Your task to perform on an android device: Search for 5 star sushi restaurants on Maps Image 0: 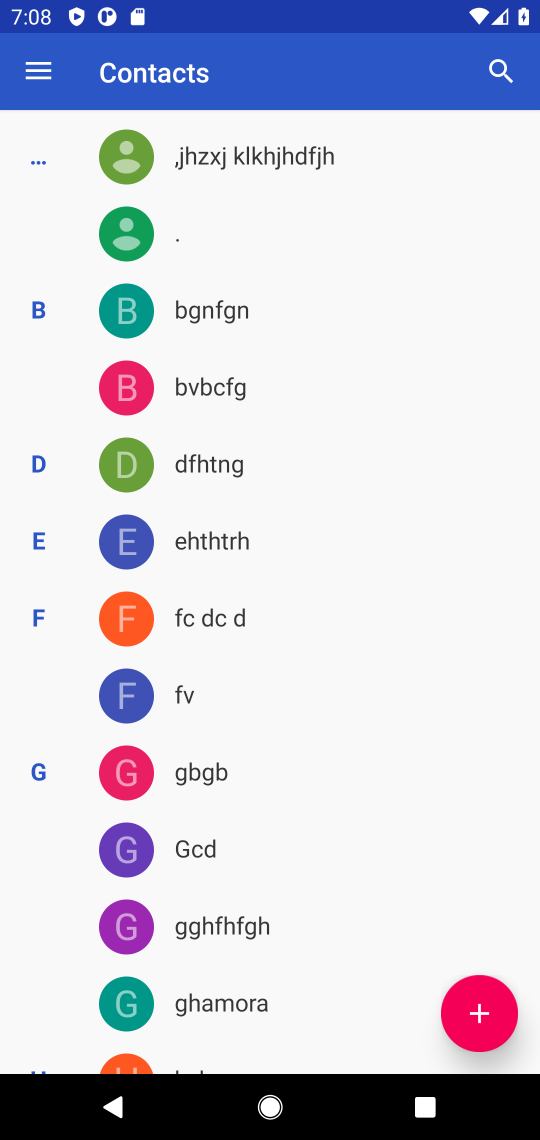
Step 0: press home button
Your task to perform on an android device: Search for 5 star sushi restaurants on Maps Image 1: 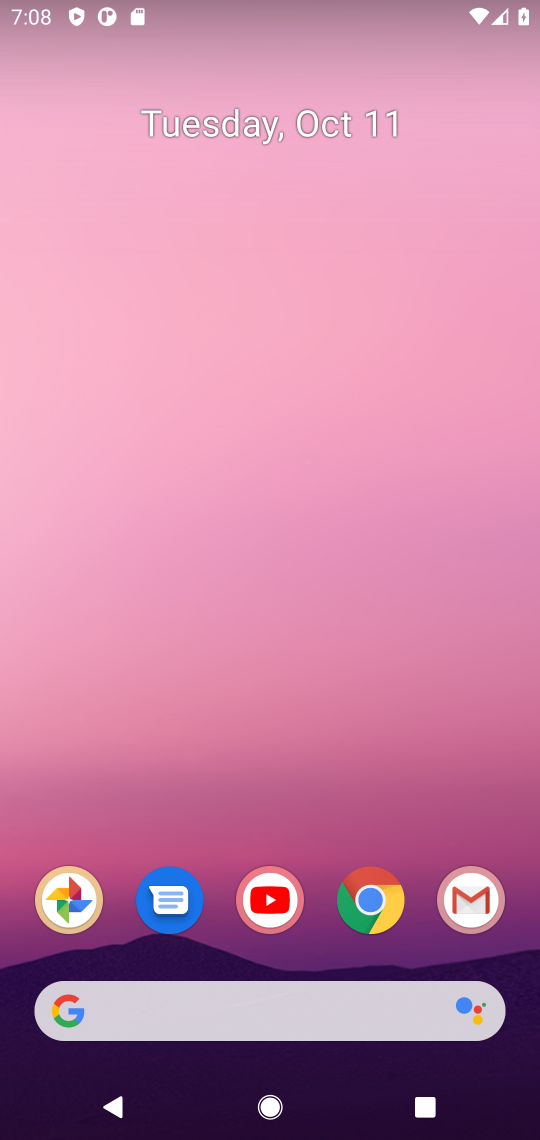
Step 1: click (356, 903)
Your task to perform on an android device: Search for 5 star sushi restaurants on Maps Image 2: 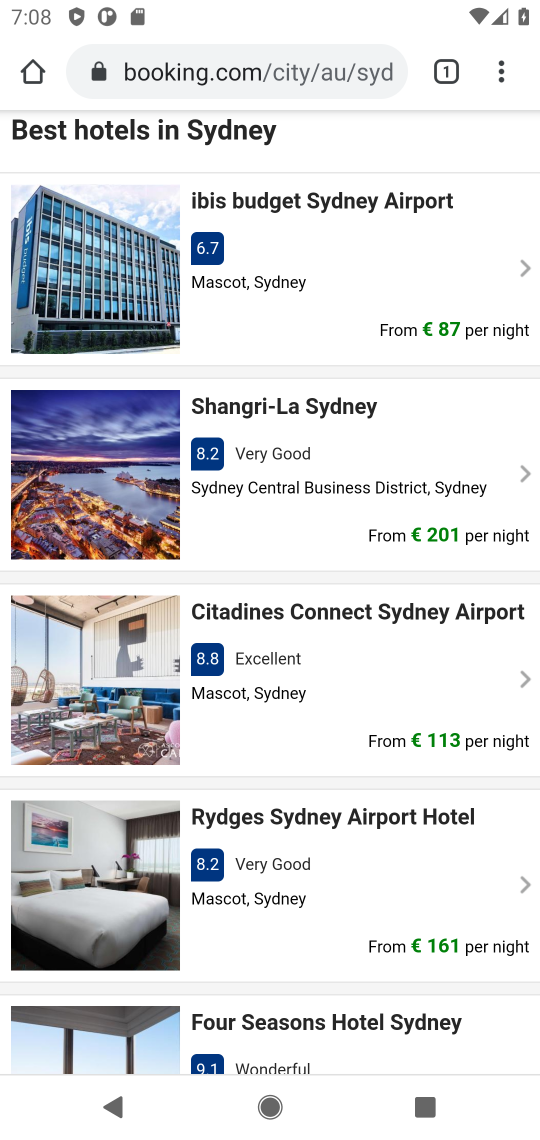
Step 2: click (290, 75)
Your task to perform on an android device: Search for 5 star sushi restaurants on Maps Image 3: 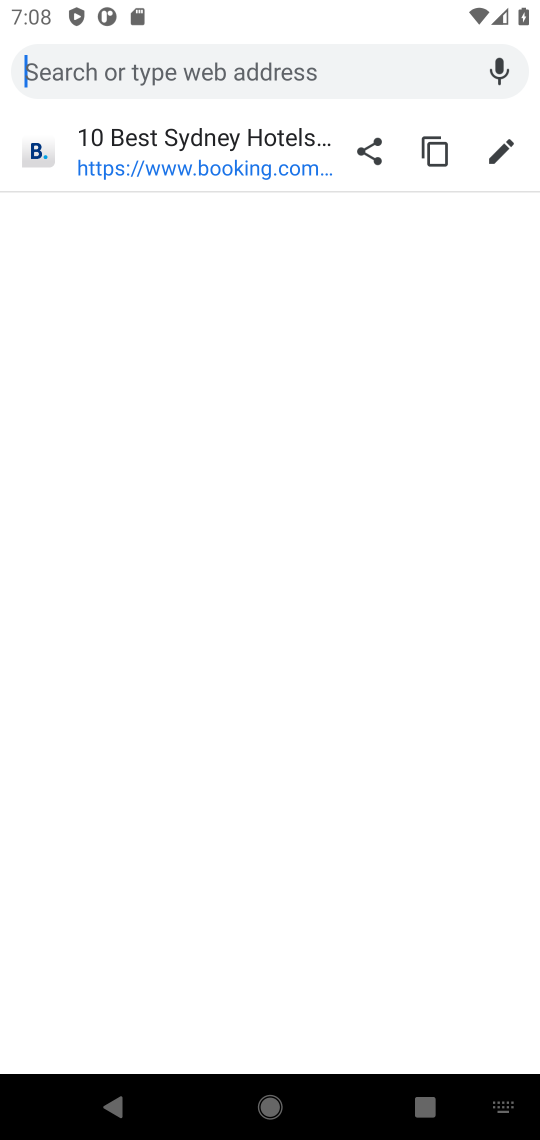
Step 3: press home button
Your task to perform on an android device: Search for 5 star sushi restaurants on Maps Image 4: 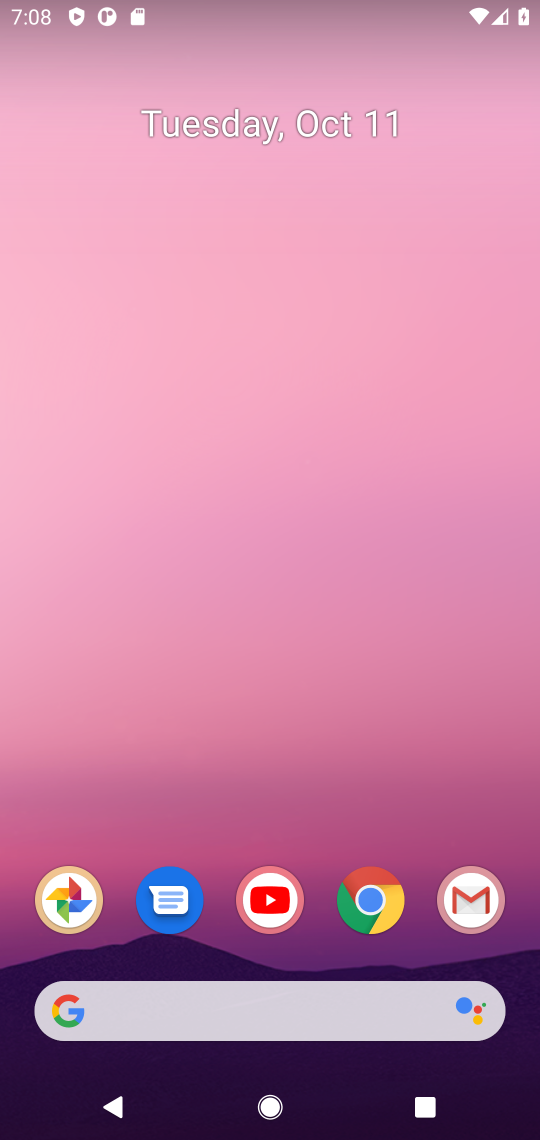
Step 4: drag from (368, 703) to (343, 22)
Your task to perform on an android device: Search for 5 star sushi restaurants on Maps Image 5: 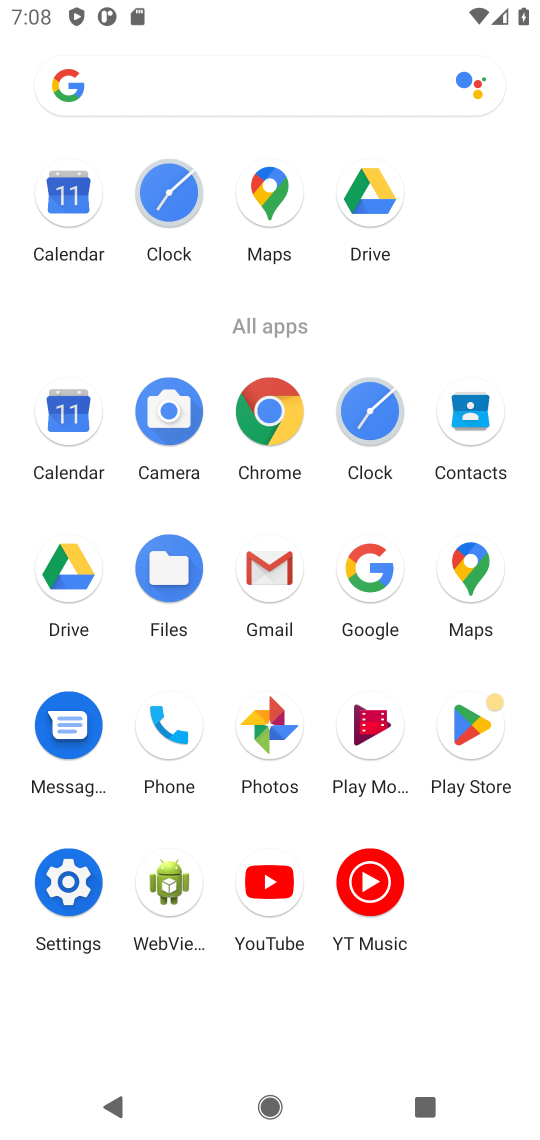
Step 5: click (483, 565)
Your task to perform on an android device: Search for 5 star sushi restaurants on Maps Image 6: 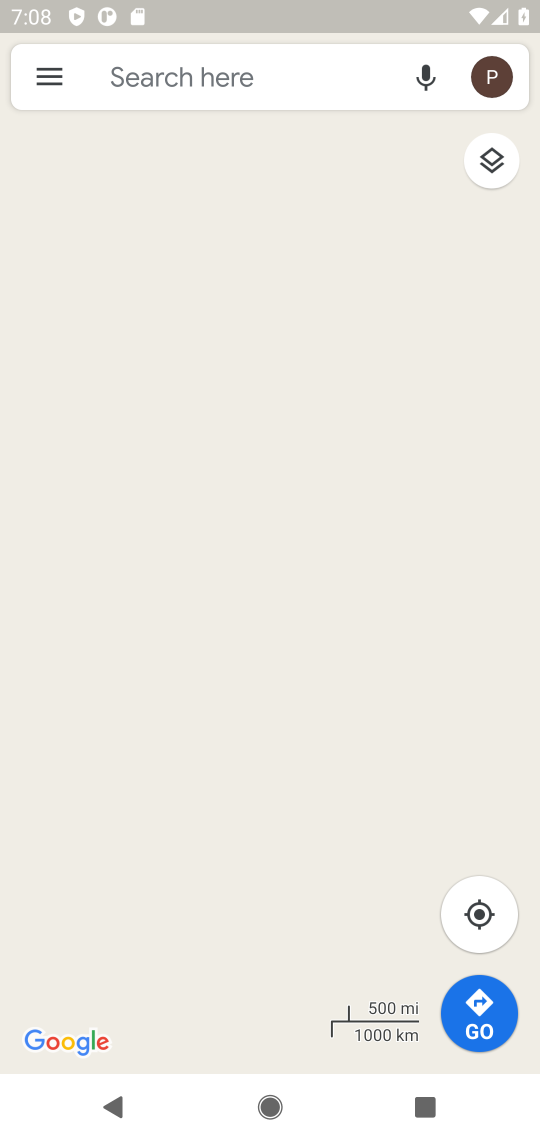
Step 6: click (237, 83)
Your task to perform on an android device: Search for 5 star sushi restaurants on Maps Image 7: 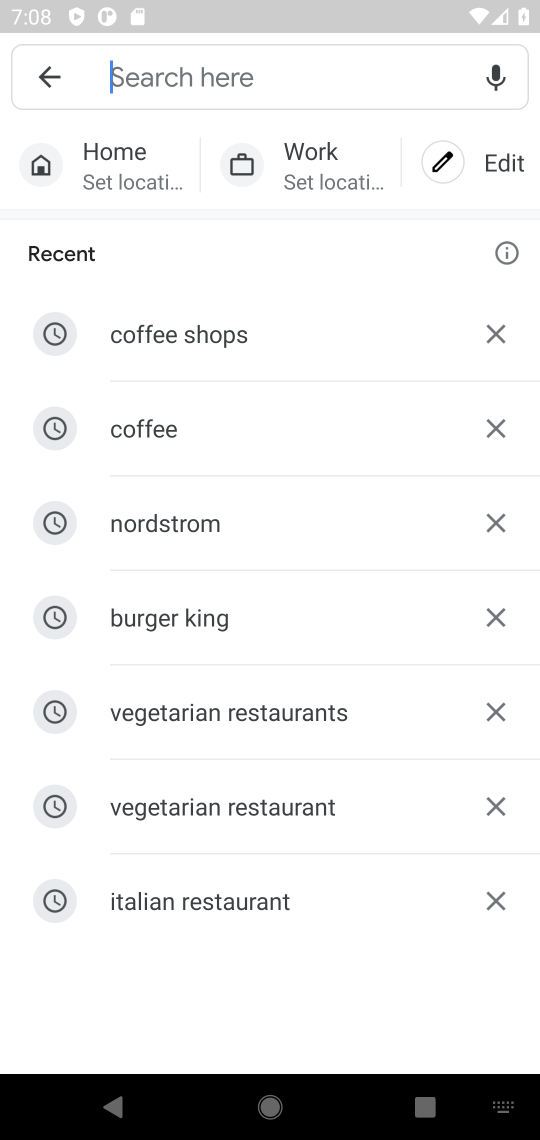
Step 7: type "5 star sushi restaurants"
Your task to perform on an android device: Search for 5 star sushi restaurants on Maps Image 8: 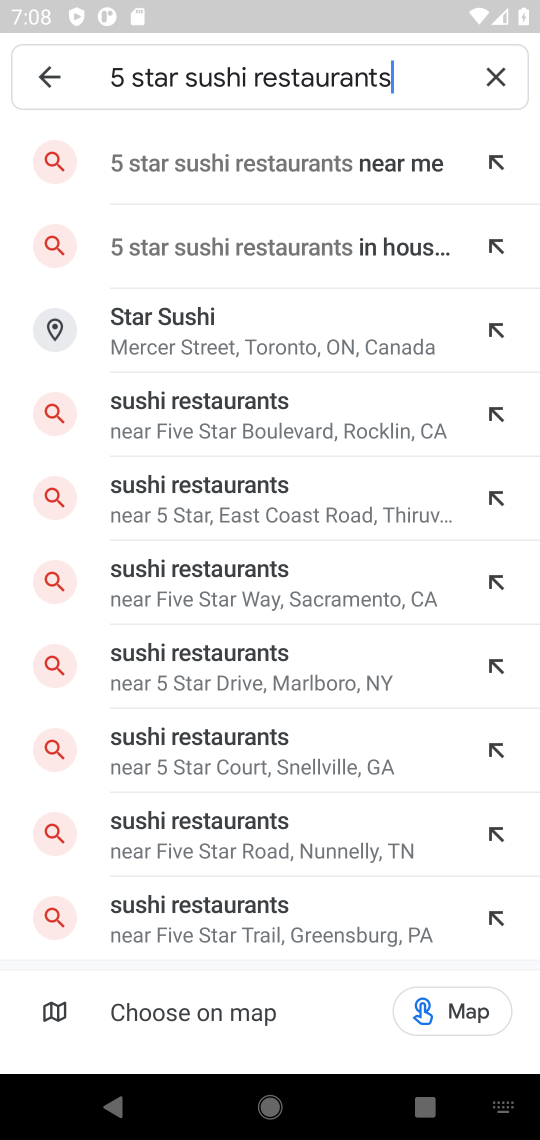
Step 8: click (304, 418)
Your task to perform on an android device: Search for 5 star sushi restaurants on Maps Image 9: 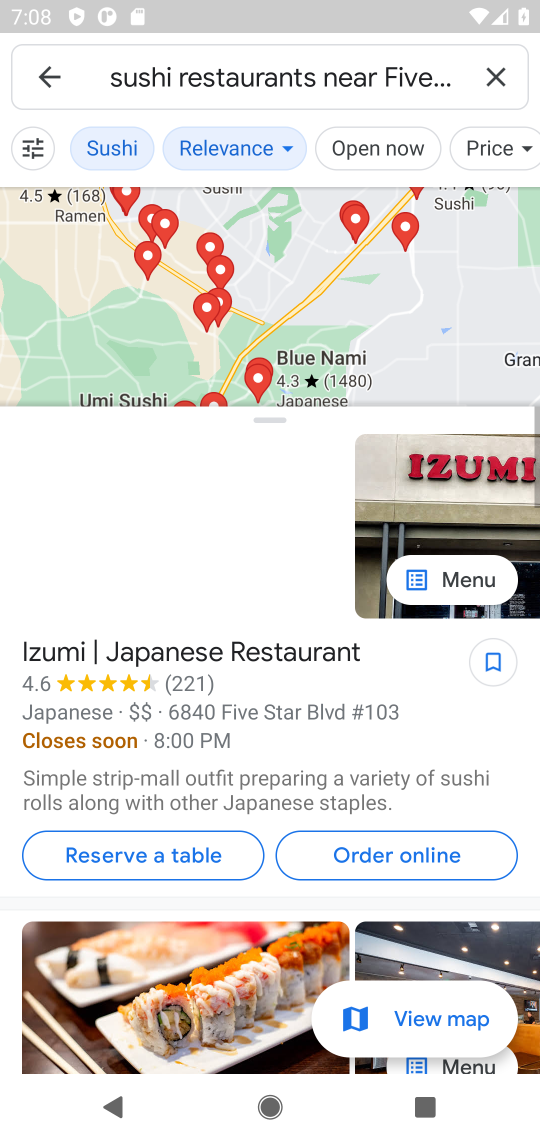
Step 9: drag from (409, 574) to (393, 339)
Your task to perform on an android device: Search for 5 star sushi restaurants on Maps Image 10: 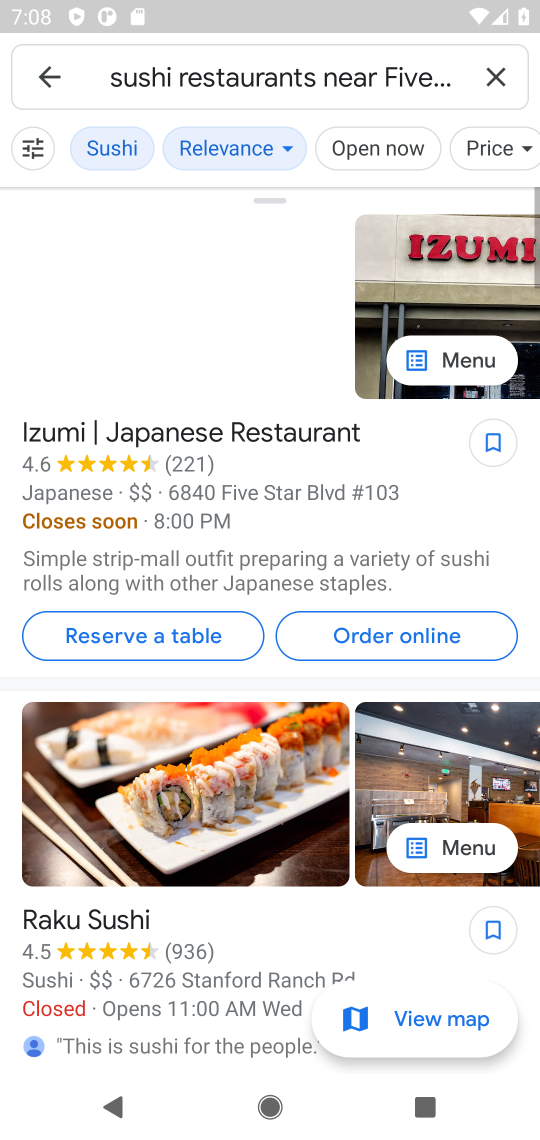
Step 10: click (37, 147)
Your task to perform on an android device: Search for 5 star sushi restaurants on Maps Image 11: 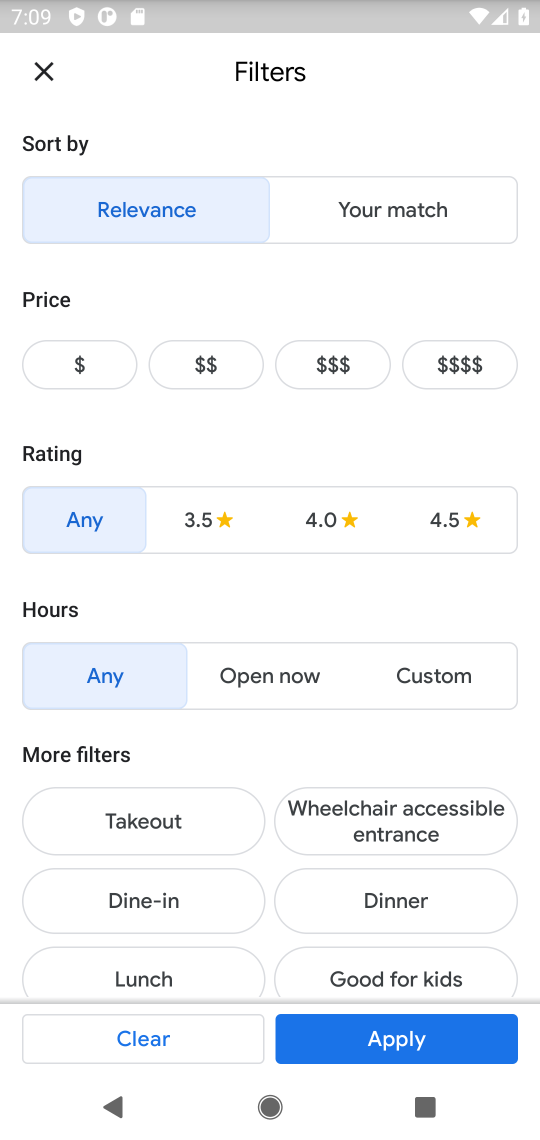
Step 11: click (439, 527)
Your task to perform on an android device: Search for 5 star sushi restaurants on Maps Image 12: 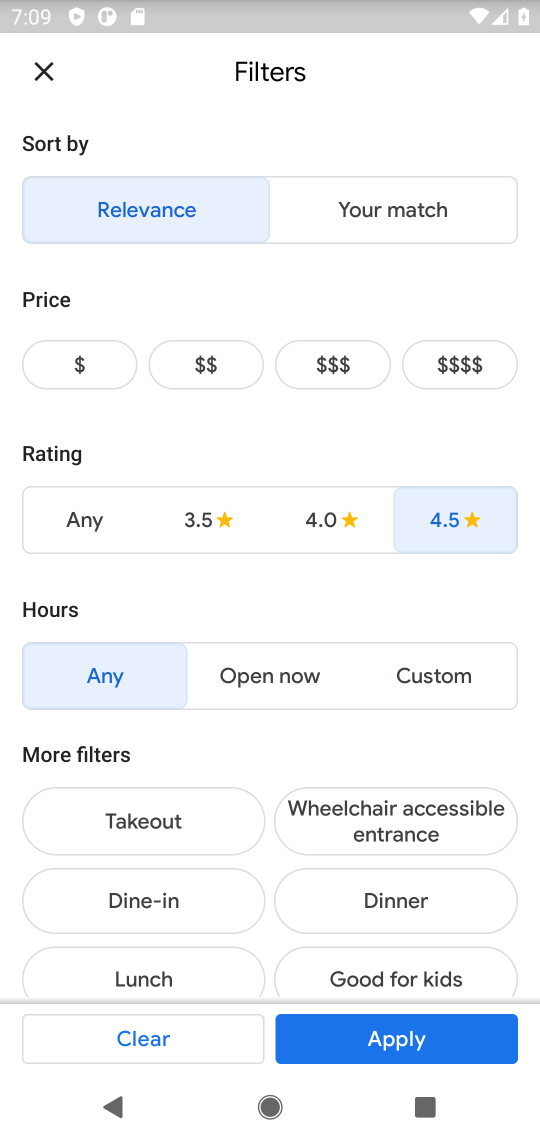
Step 12: click (410, 1034)
Your task to perform on an android device: Search for 5 star sushi restaurants on Maps Image 13: 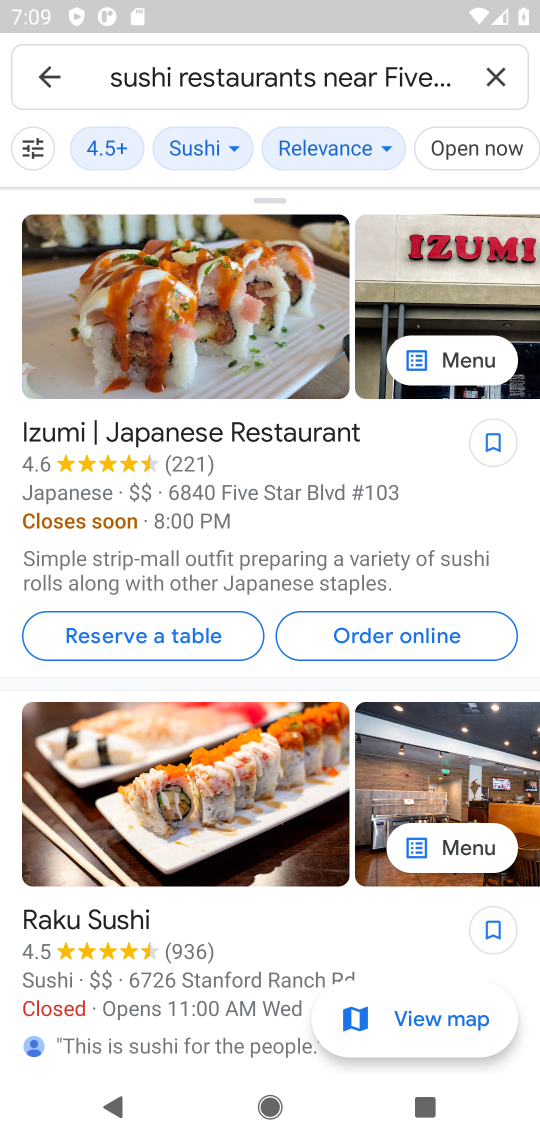
Step 13: task complete